Your task to perform on an android device: turn off picture-in-picture Image 0: 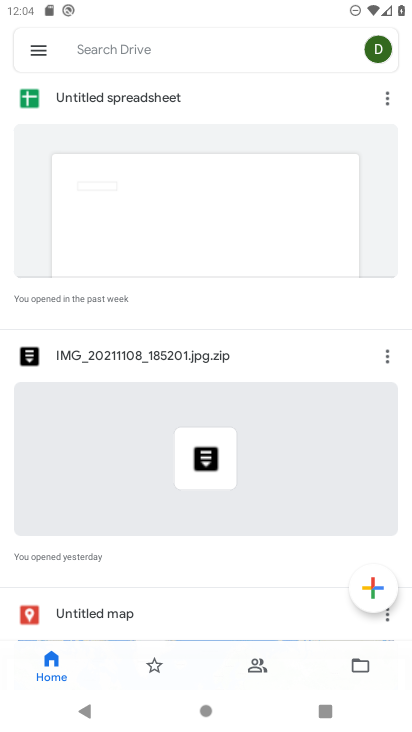
Step 0: press home button
Your task to perform on an android device: turn off picture-in-picture Image 1: 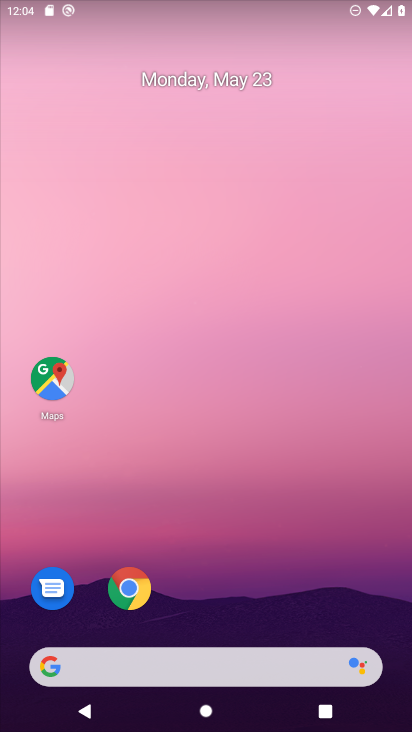
Step 1: drag from (258, 689) to (240, 127)
Your task to perform on an android device: turn off picture-in-picture Image 2: 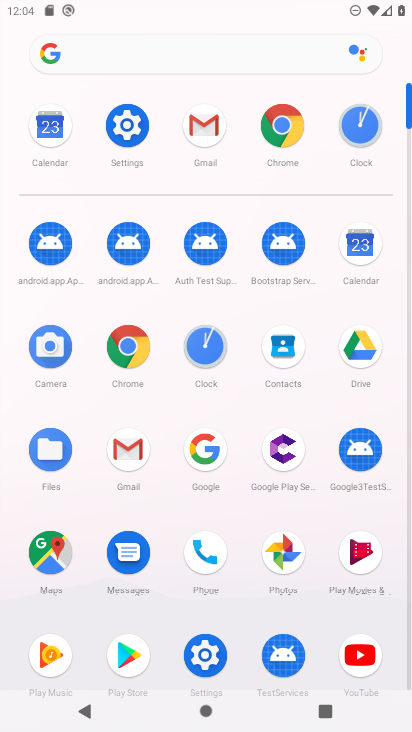
Step 2: click (135, 134)
Your task to perform on an android device: turn off picture-in-picture Image 3: 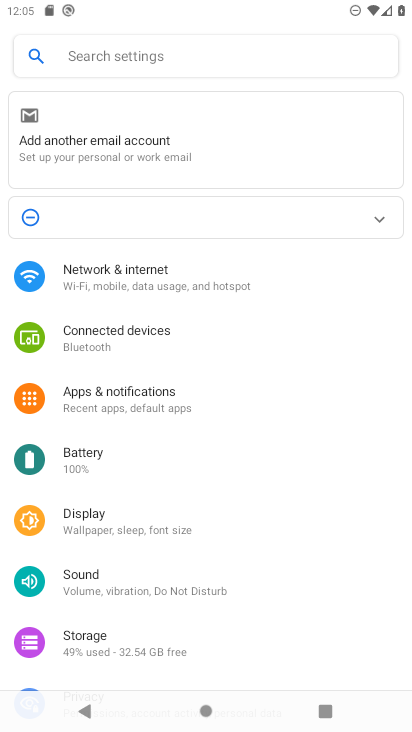
Step 3: click (171, 54)
Your task to perform on an android device: turn off picture-in-picture Image 4: 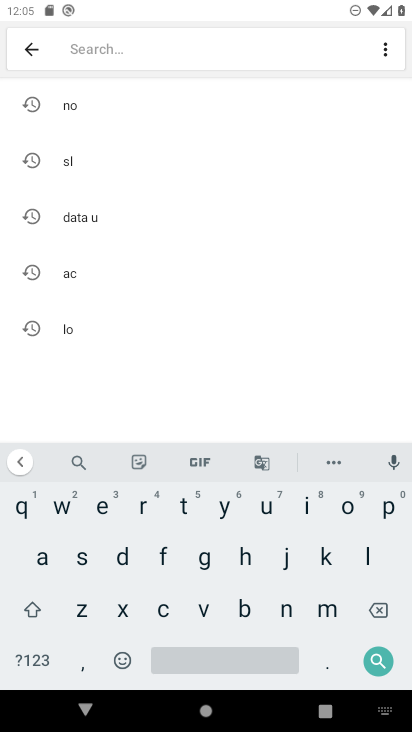
Step 4: click (386, 509)
Your task to perform on an android device: turn off picture-in-picture Image 5: 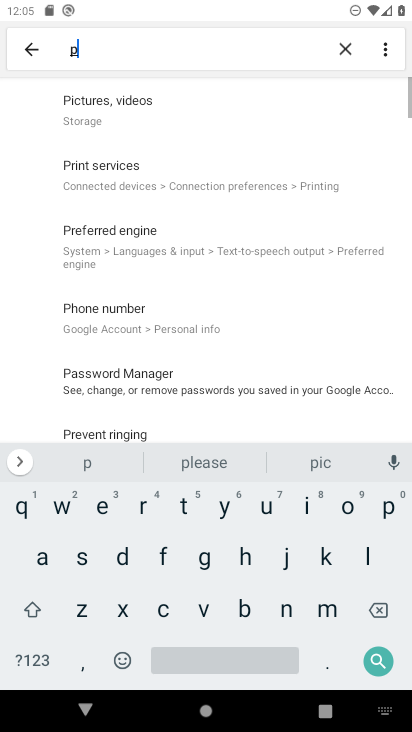
Step 5: click (299, 506)
Your task to perform on an android device: turn off picture-in-picture Image 6: 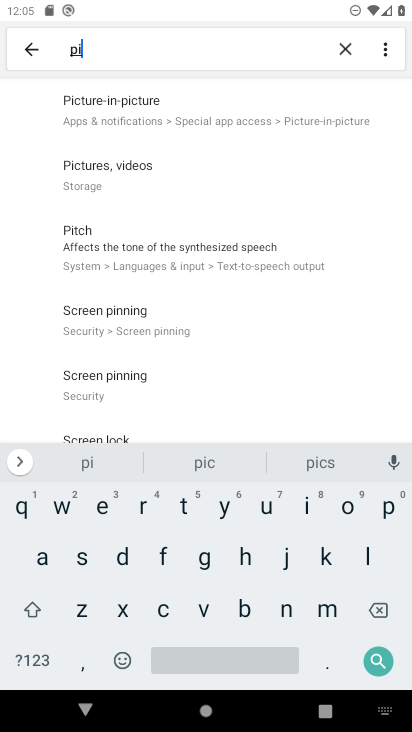
Step 6: click (149, 114)
Your task to perform on an android device: turn off picture-in-picture Image 7: 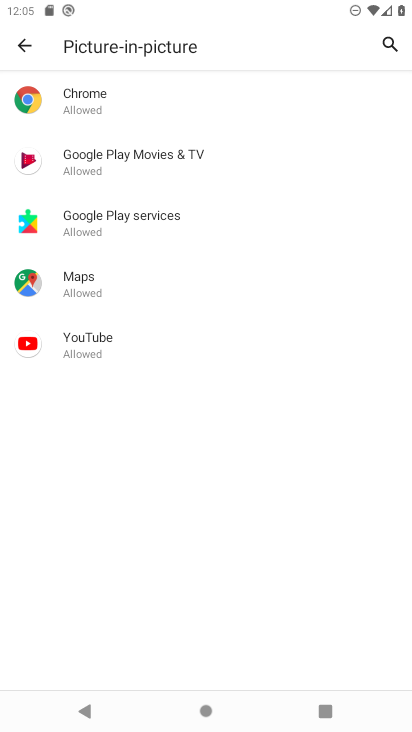
Step 7: task complete